Your task to perform on an android device: Open Reddit.com Image 0: 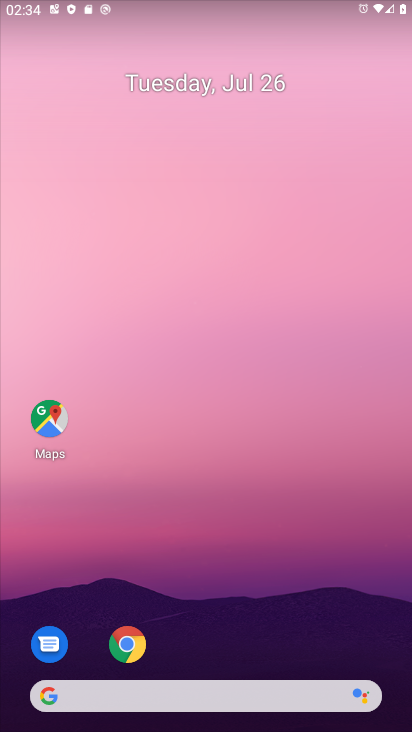
Step 0: drag from (173, 618) to (170, 178)
Your task to perform on an android device: Open Reddit.com Image 1: 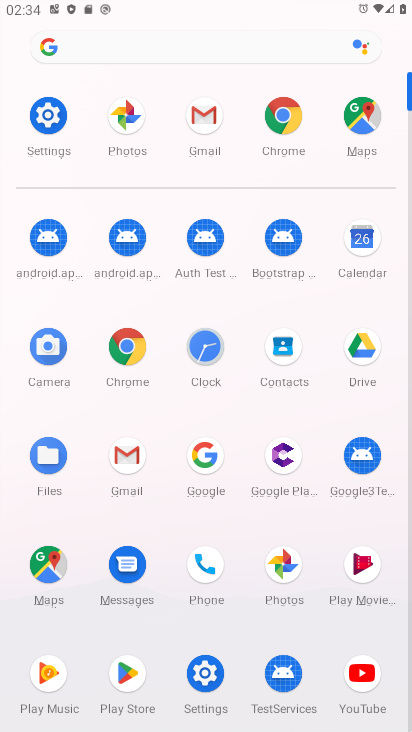
Step 1: click (128, 353)
Your task to perform on an android device: Open Reddit.com Image 2: 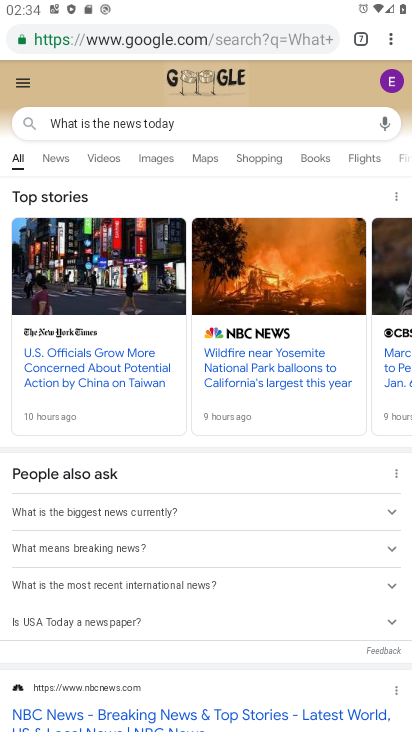
Step 2: click (396, 30)
Your task to perform on an android device: Open Reddit.com Image 3: 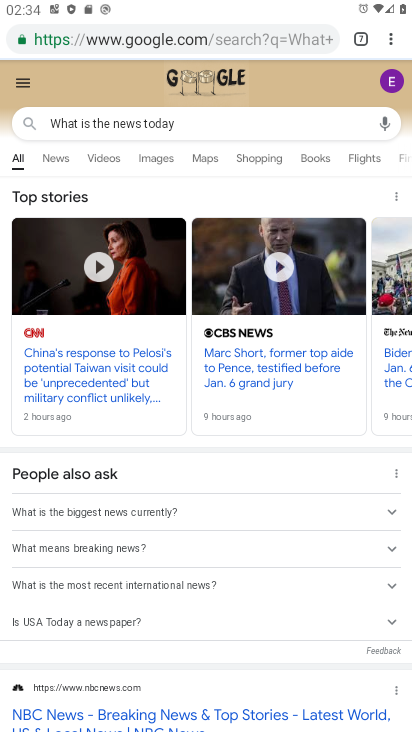
Step 3: click (392, 43)
Your task to perform on an android device: Open Reddit.com Image 4: 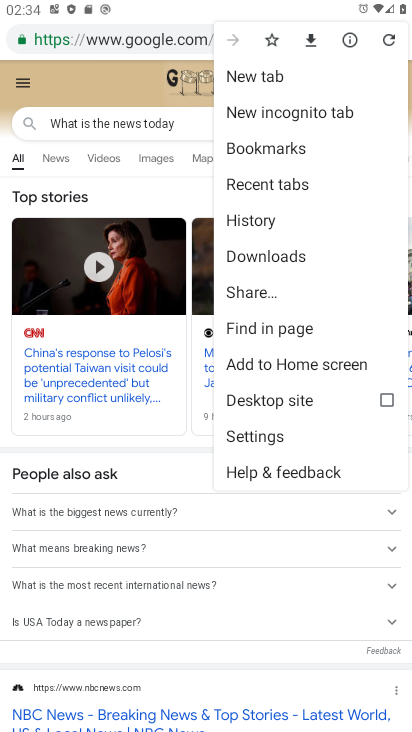
Step 4: click (275, 83)
Your task to perform on an android device: Open Reddit.com Image 5: 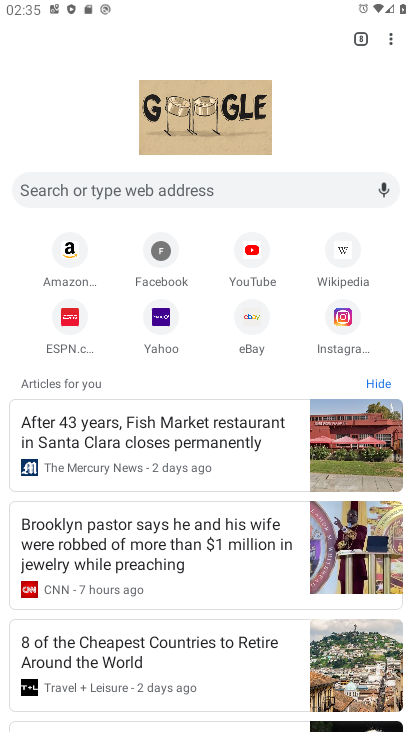
Step 5: click (226, 177)
Your task to perform on an android device: Open Reddit.com Image 6: 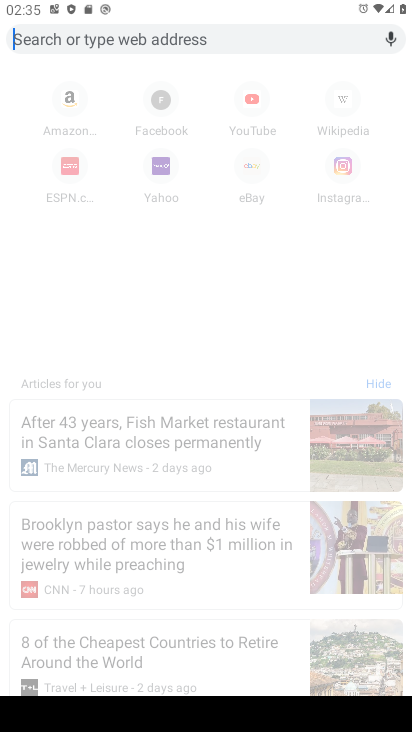
Step 6: type " Reddit.com "
Your task to perform on an android device: Open Reddit.com Image 7: 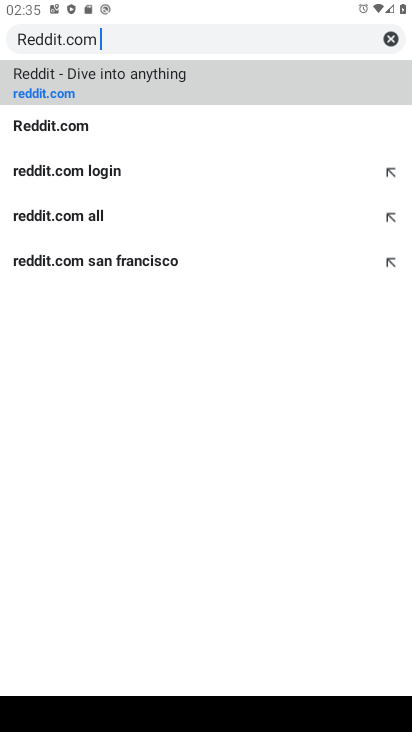
Step 7: click (64, 123)
Your task to perform on an android device: Open Reddit.com Image 8: 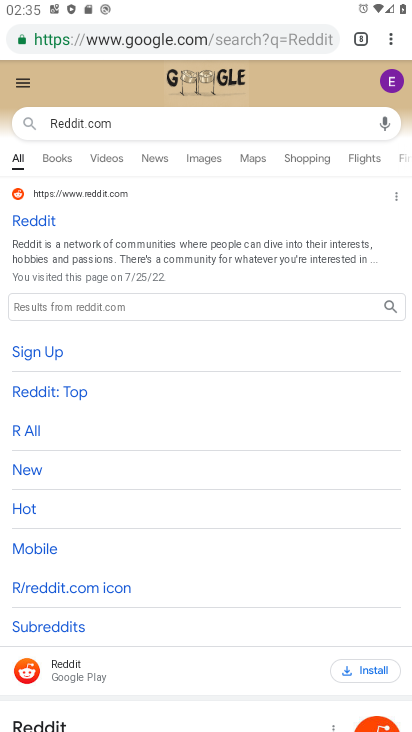
Step 8: task complete